Your task to perform on an android device: turn on translation in the chrome app Image 0: 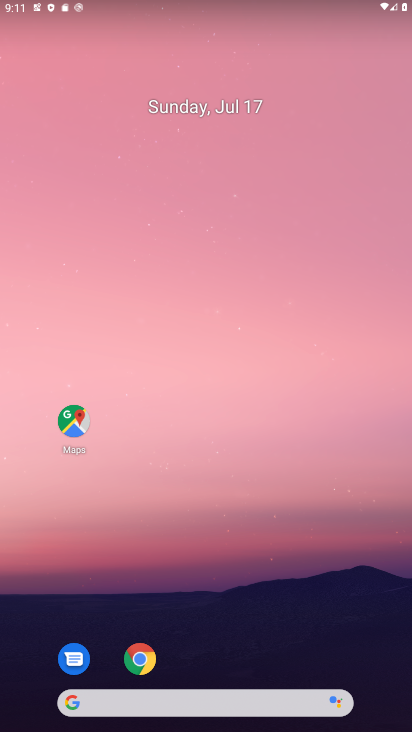
Step 0: click (135, 661)
Your task to perform on an android device: turn on translation in the chrome app Image 1: 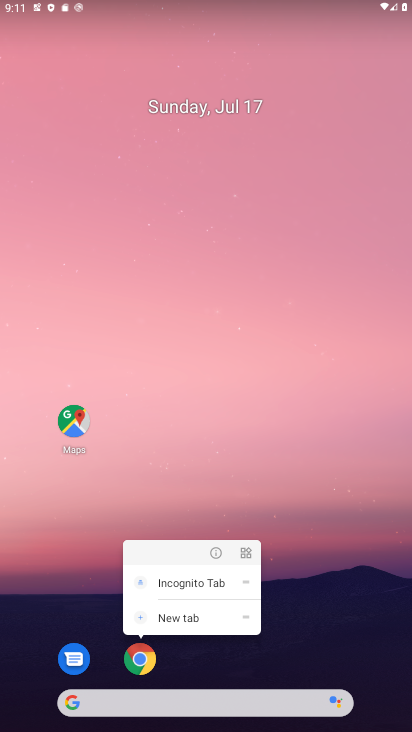
Step 1: click (150, 663)
Your task to perform on an android device: turn on translation in the chrome app Image 2: 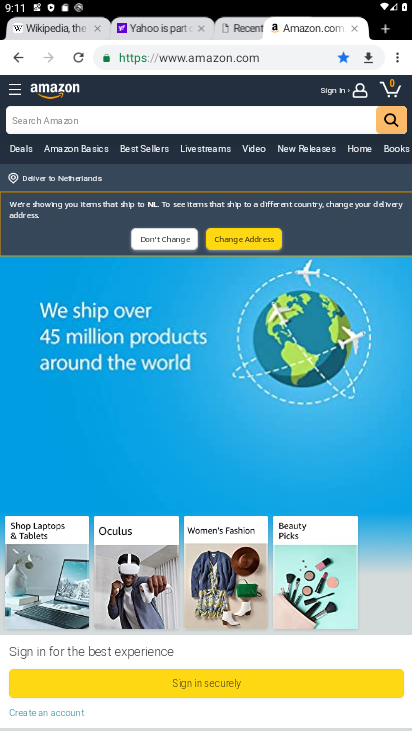
Step 2: click (395, 55)
Your task to perform on an android device: turn on translation in the chrome app Image 3: 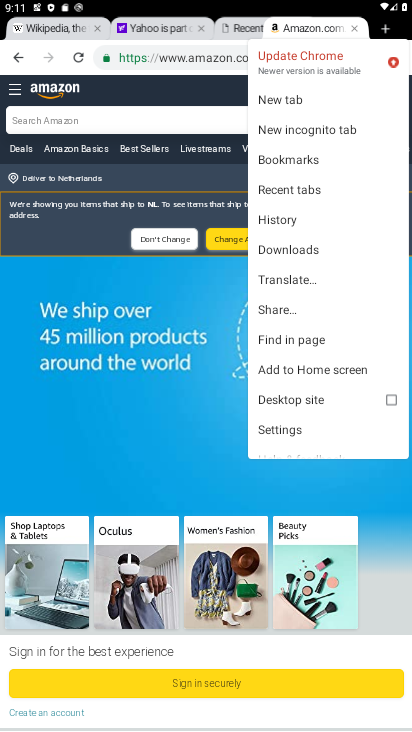
Step 3: click (292, 436)
Your task to perform on an android device: turn on translation in the chrome app Image 4: 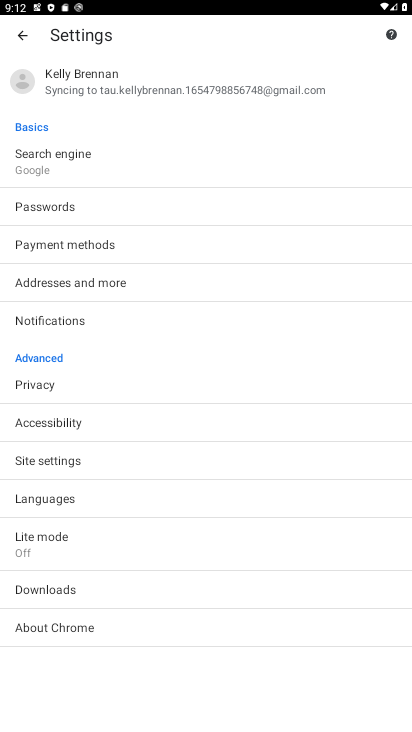
Step 4: click (113, 500)
Your task to perform on an android device: turn on translation in the chrome app Image 5: 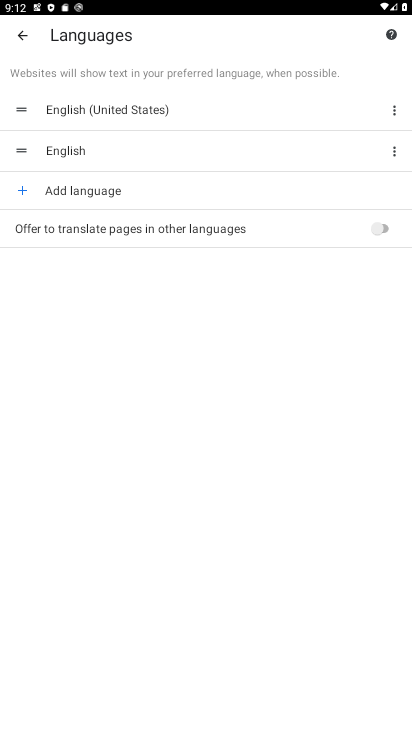
Step 5: click (389, 232)
Your task to perform on an android device: turn on translation in the chrome app Image 6: 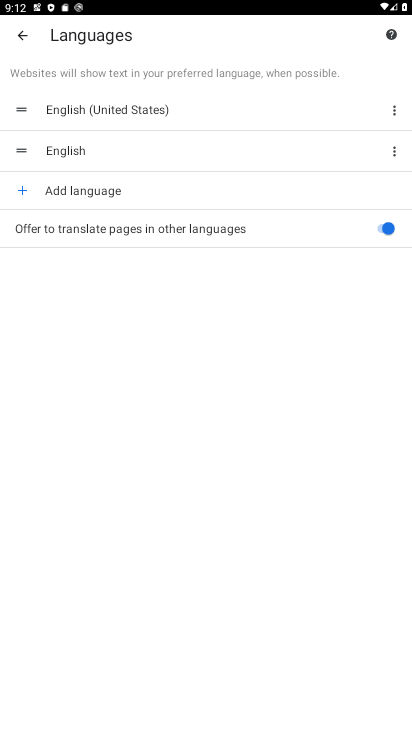
Step 6: task complete